Your task to perform on an android device: Open sound settings Image 0: 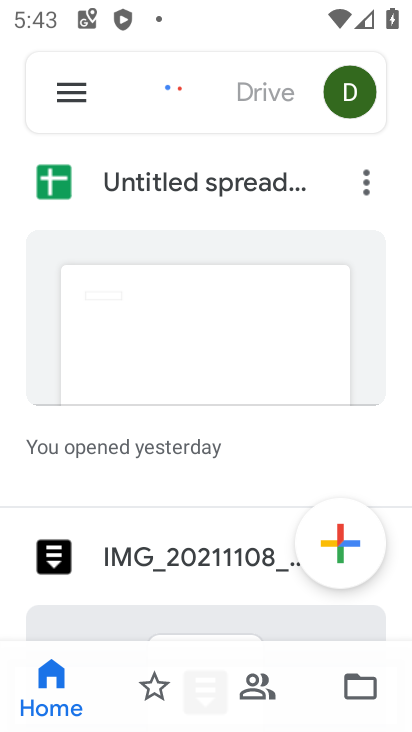
Step 0: press home button
Your task to perform on an android device: Open sound settings Image 1: 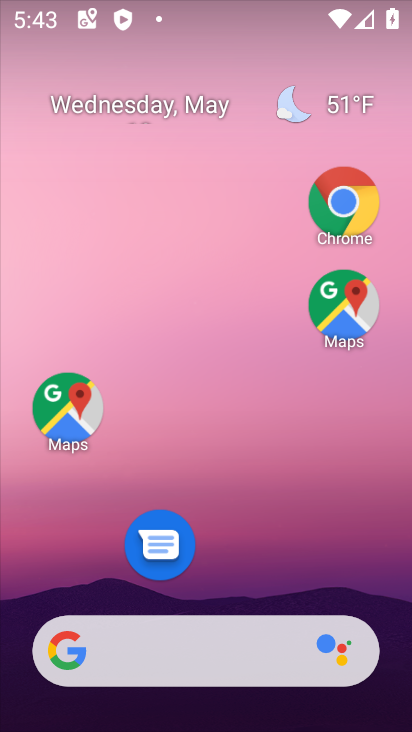
Step 1: drag from (300, 528) to (228, 68)
Your task to perform on an android device: Open sound settings Image 2: 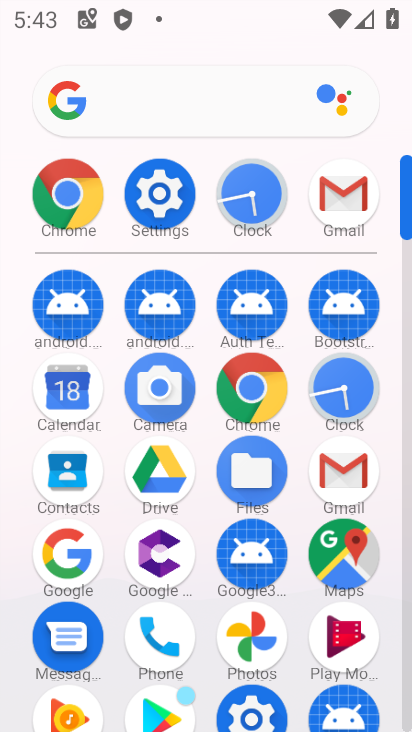
Step 2: click (167, 187)
Your task to perform on an android device: Open sound settings Image 3: 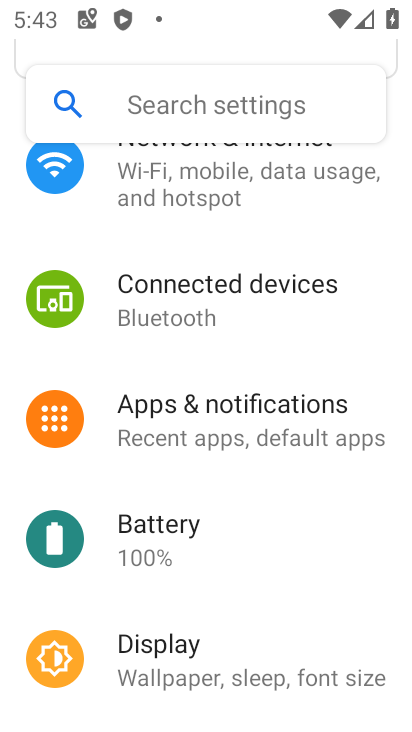
Step 3: drag from (176, 635) to (131, 151)
Your task to perform on an android device: Open sound settings Image 4: 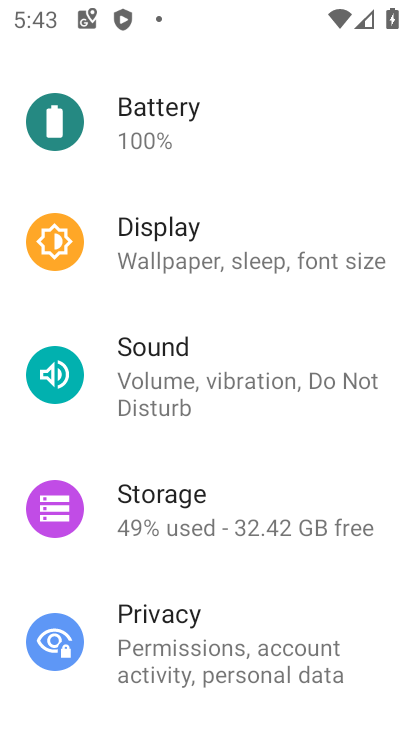
Step 4: click (146, 396)
Your task to perform on an android device: Open sound settings Image 5: 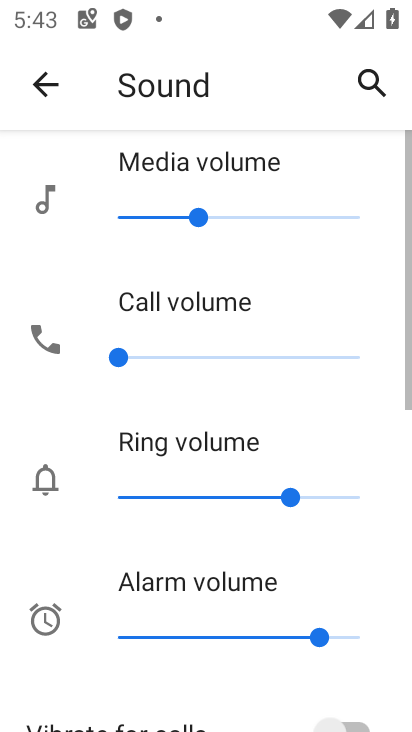
Step 5: task complete